Your task to perform on an android device: delete browsing data in the chrome app Image 0: 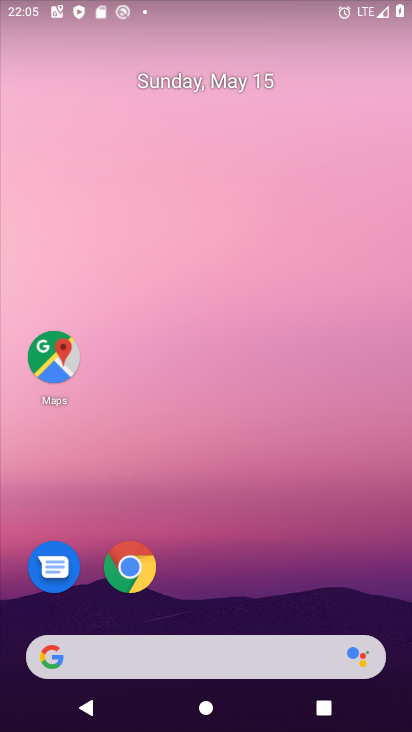
Step 0: click (150, 560)
Your task to perform on an android device: delete browsing data in the chrome app Image 1: 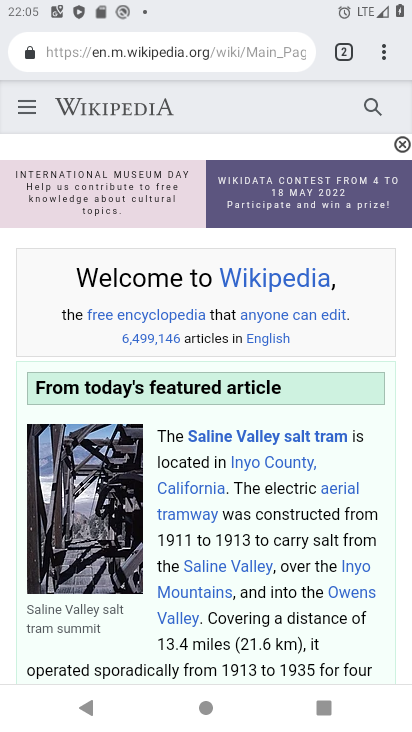
Step 1: click (392, 58)
Your task to perform on an android device: delete browsing data in the chrome app Image 2: 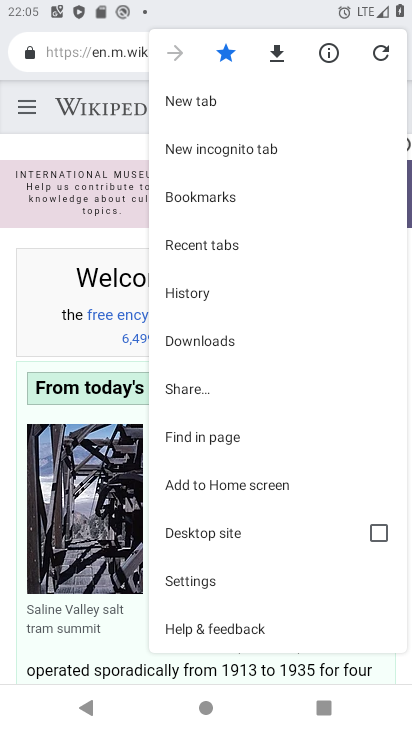
Step 2: click (210, 297)
Your task to perform on an android device: delete browsing data in the chrome app Image 3: 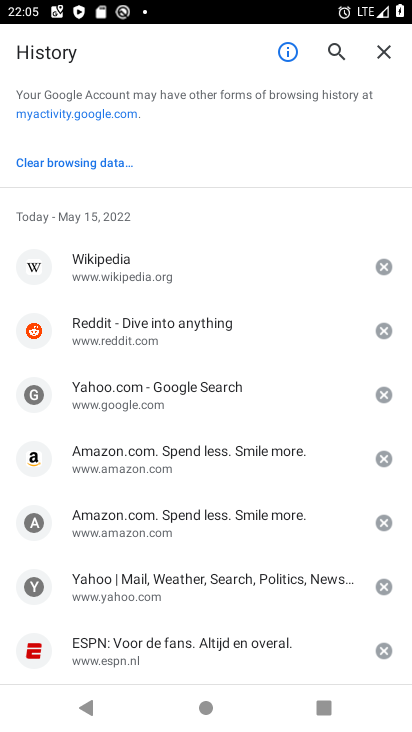
Step 3: click (108, 161)
Your task to perform on an android device: delete browsing data in the chrome app Image 4: 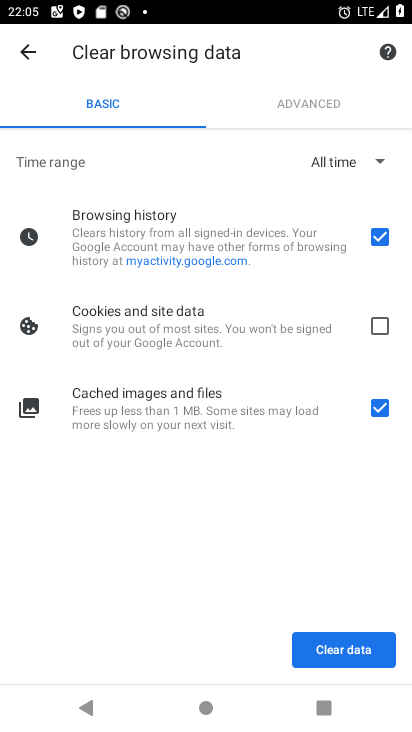
Step 4: click (336, 656)
Your task to perform on an android device: delete browsing data in the chrome app Image 5: 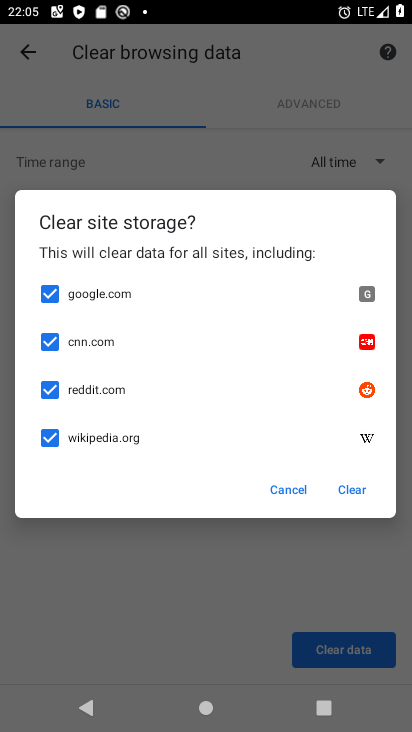
Step 5: click (355, 483)
Your task to perform on an android device: delete browsing data in the chrome app Image 6: 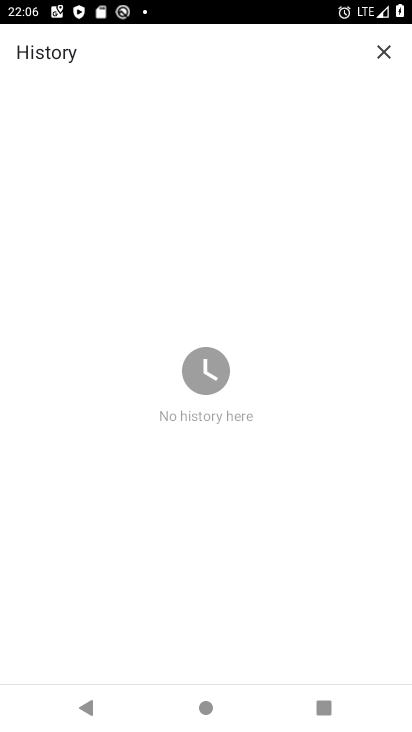
Step 6: task complete